Your task to perform on an android device: add a contact Image 0: 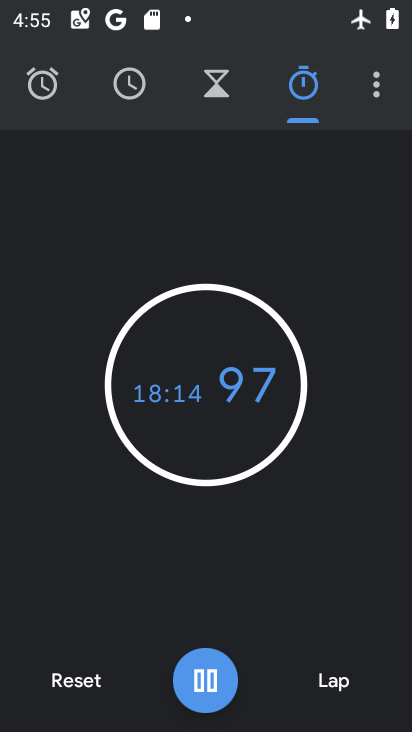
Step 0: press home button
Your task to perform on an android device: add a contact Image 1: 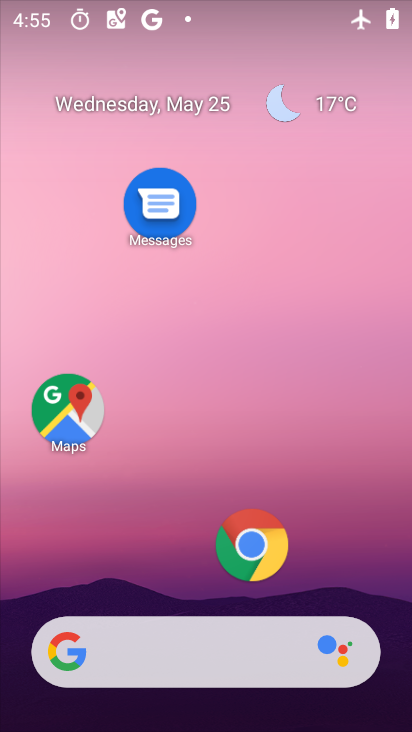
Step 1: drag from (200, 390) to (240, 75)
Your task to perform on an android device: add a contact Image 2: 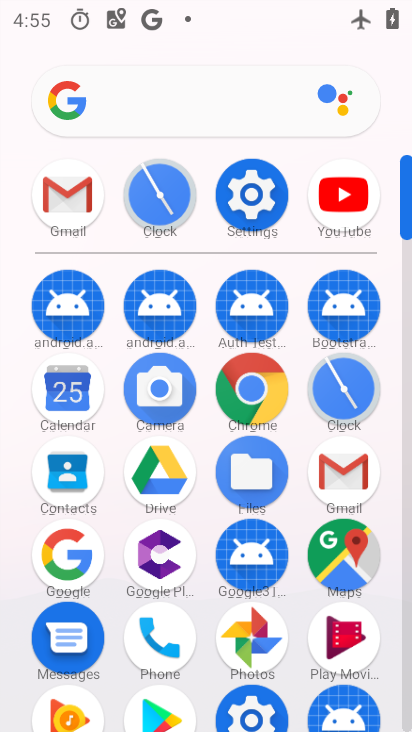
Step 2: click (64, 487)
Your task to perform on an android device: add a contact Image 3: 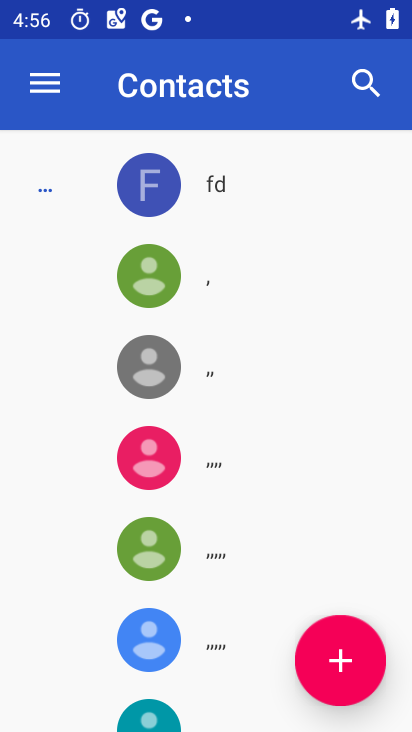
Step 3: click (336, 631)
Your task to perform on an android device: add a contact Image 4: 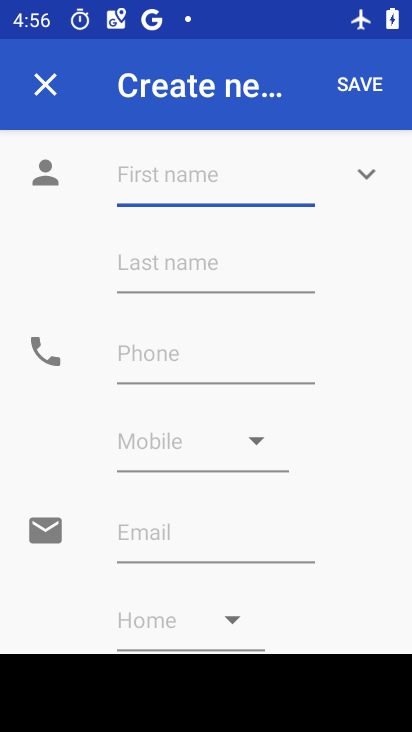
Step 4: type "vfdfb"
Your task to perform on an android device: add a contact Image 5: 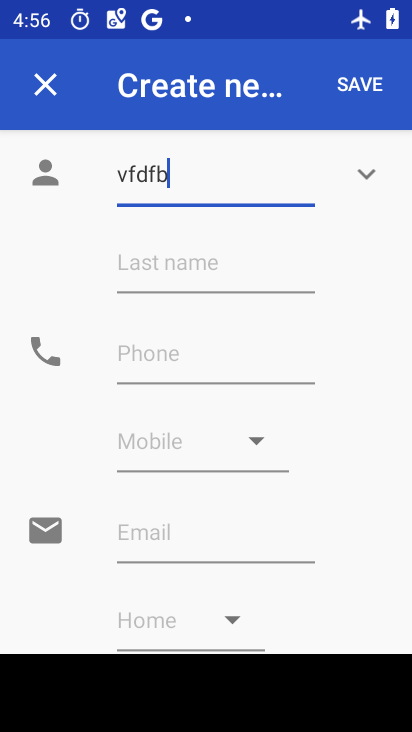
Step 5: click (174, 340)
Your task to perform on an android device: add a contact Image 6: 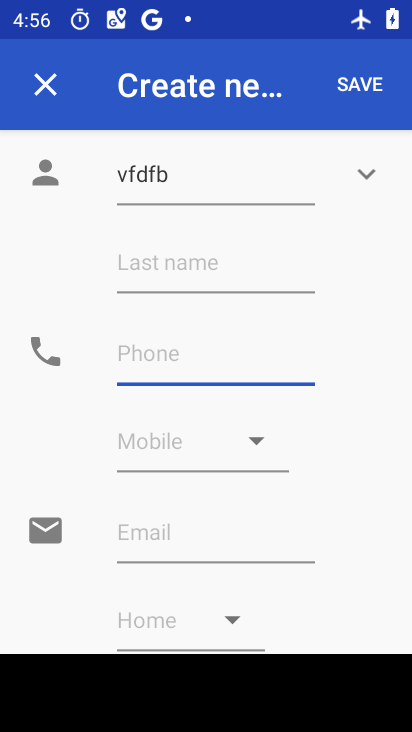
Step 6: type "456546577"
Your task to perform on an android device: add a contact Image 7: 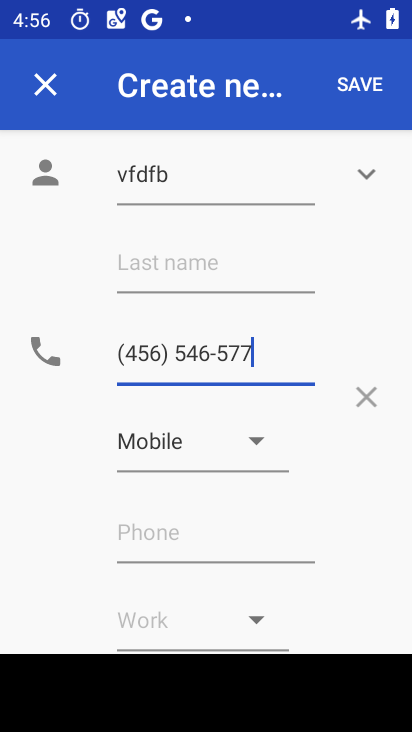
Step 7: click (347, 74)
Your task to perform on an android device: add a contact Image 8: 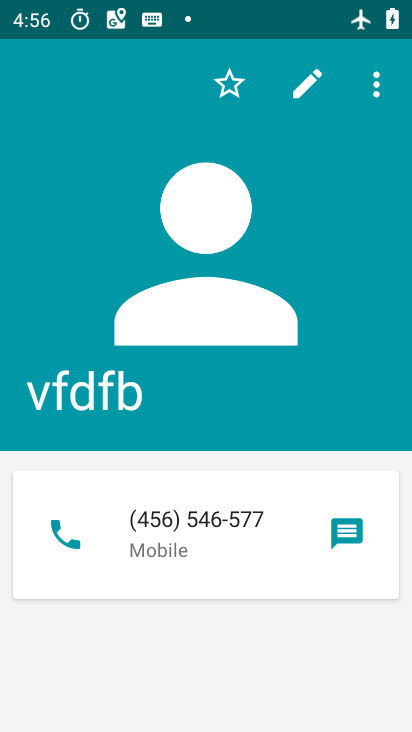
Step 8: task complete